Your task to perform on an android device: Open Google Maps Image 0: 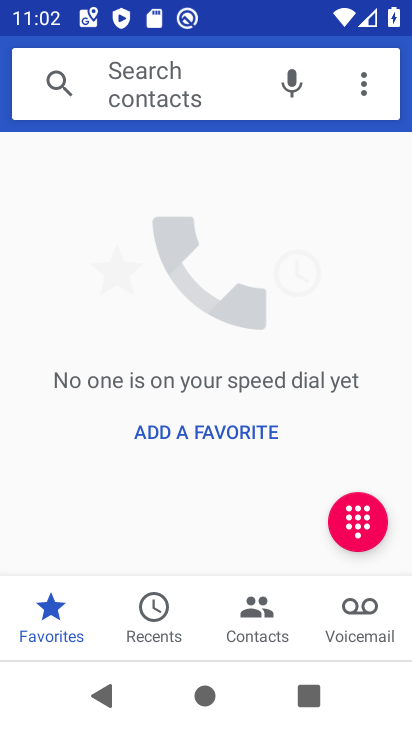
Step 0: press home button
Your task to perform on an android device: Open Google Maps Image 1: 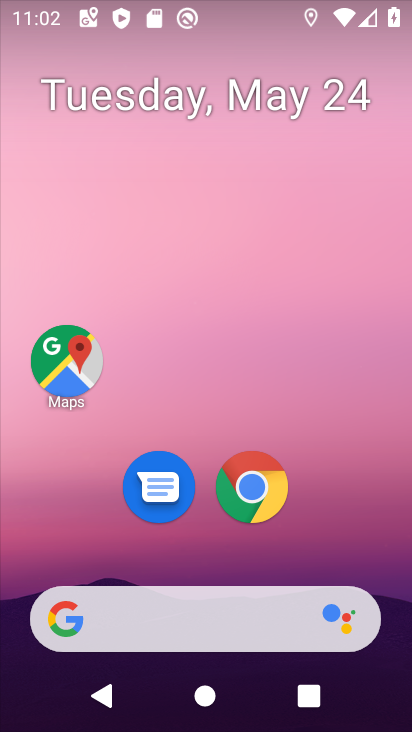
Step 1: click (65, 368)
Your task to perform on an android device: Open Google Maps Image 2: 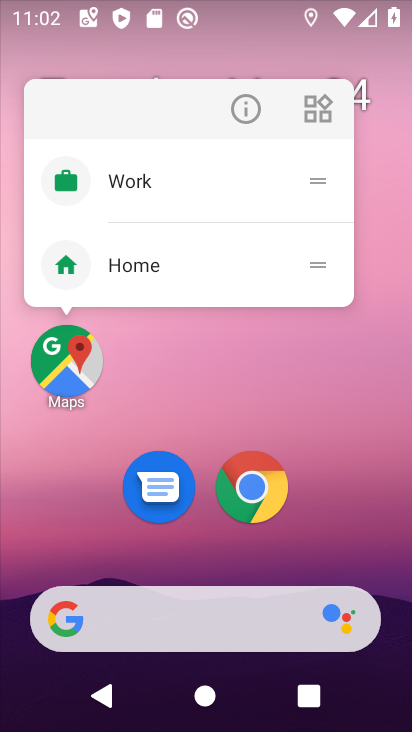
Step 2: click (65, 342)
Your task to perform on an android device: Open Google Maps Image 3: 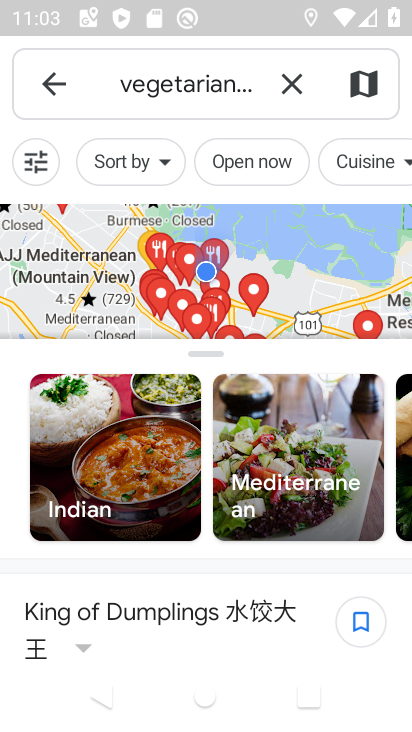
Step 3: task complete